Your task to perform on an android device: Open Youtube and go to "Your channel" Image 0: 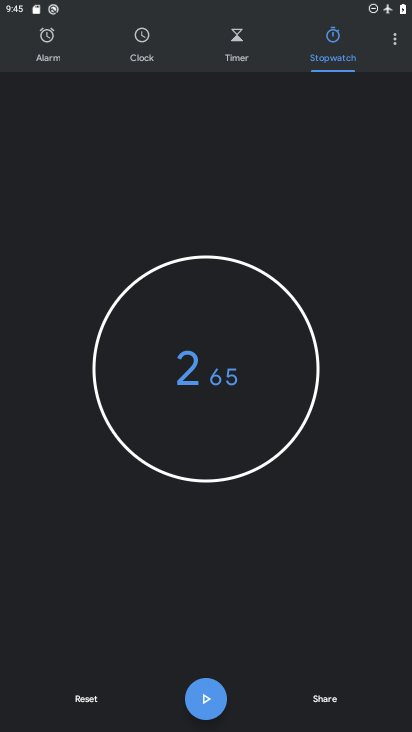
Step 0: press home button
Your task to perform on an android device: Open Youtube and go to "Your channel" Image 1: 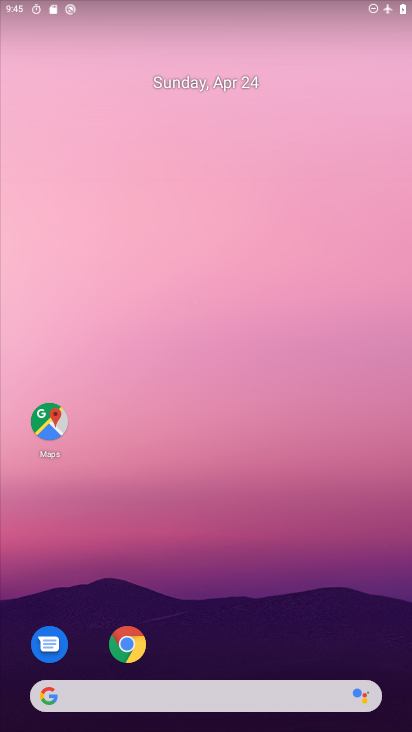
Step 1: drag from (197, 678) to (142, 218)
Your task to perform on an android device: Open Youtube and go to "Your channel" Image 2: 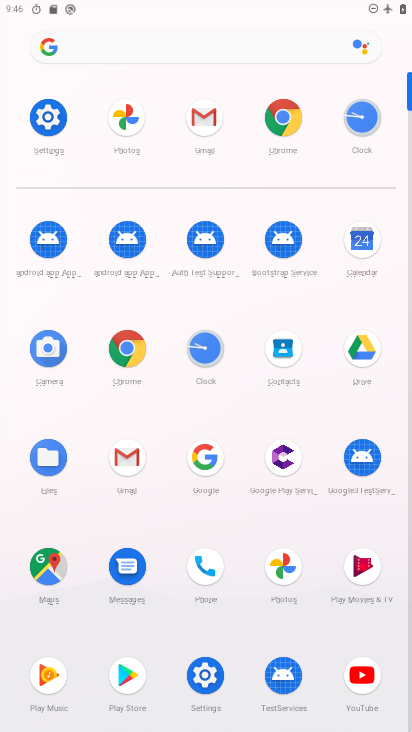
Step 2: click (359, 659)
Your task to perform on an android device: Open Youtube and go to "Your channel" Image 3: 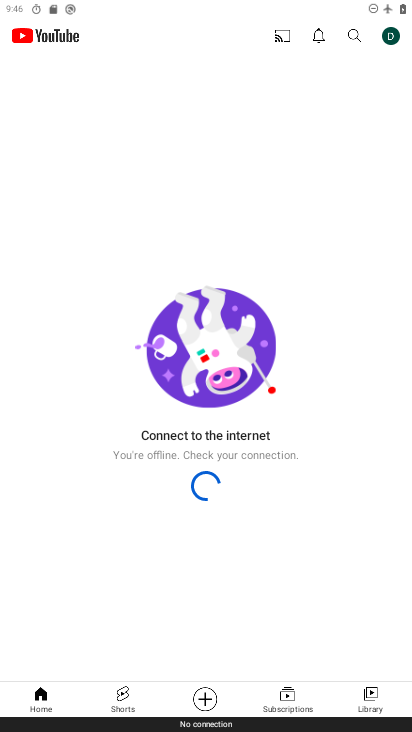
Step 3: click (358, 693)
Your task to perform on an android device: Open Youtube and go to "Your channel" Image 4: 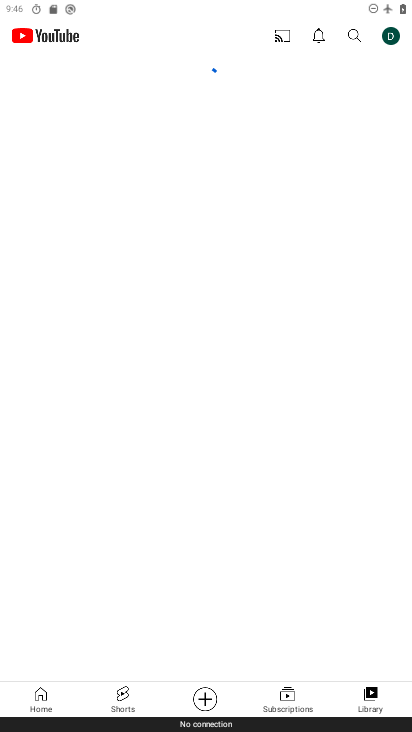
Step 4: click (377, 28)
Your task to perform on an android device: Open Youtube and go to "Your channel" Image 5: 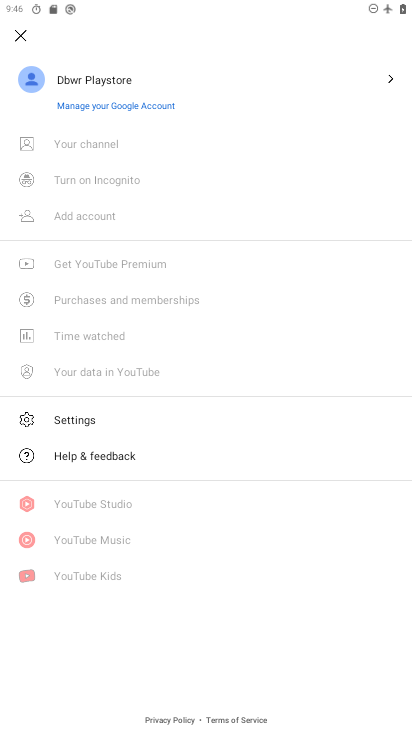
Step 5: click (94, 148)
Your task to perform on an android device: Open Youtube and go to "Your channel" Image 6: 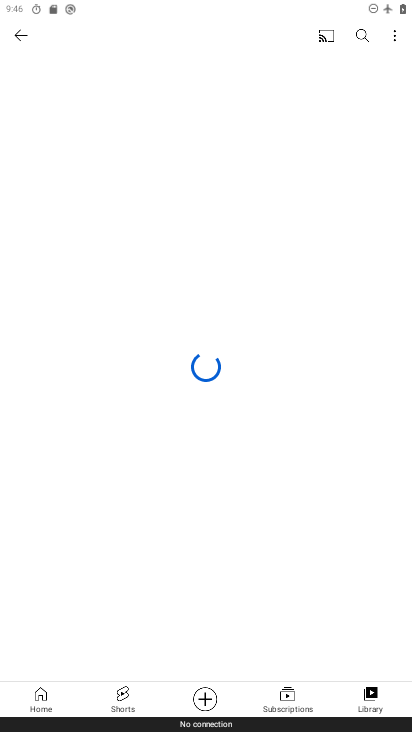
Step 6: task complete